Your task to perform on an android device: Go to settings Image 0: 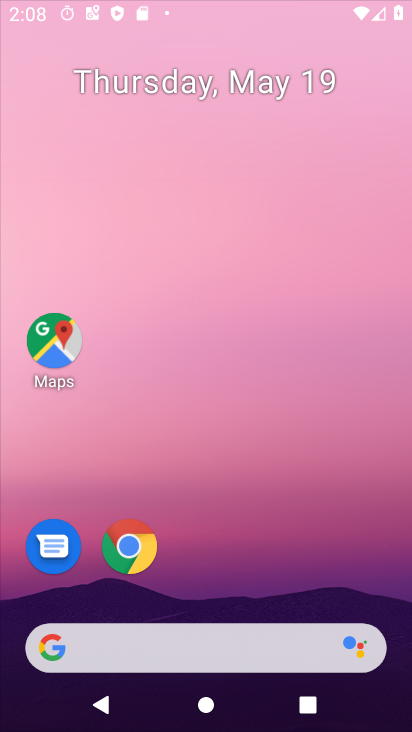
Step 0: drag from (318, 370) to (163, 123)
Your task to perform on an android device: Go to settings Image 1: 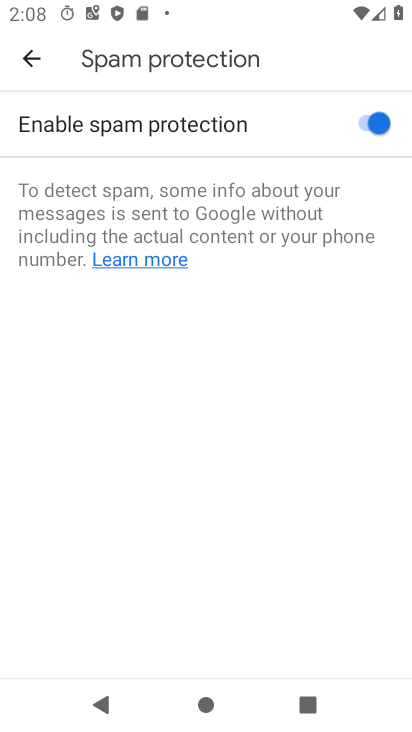
Step 1: press home button
Your task to perform on an android device: Go to settings Image 2: 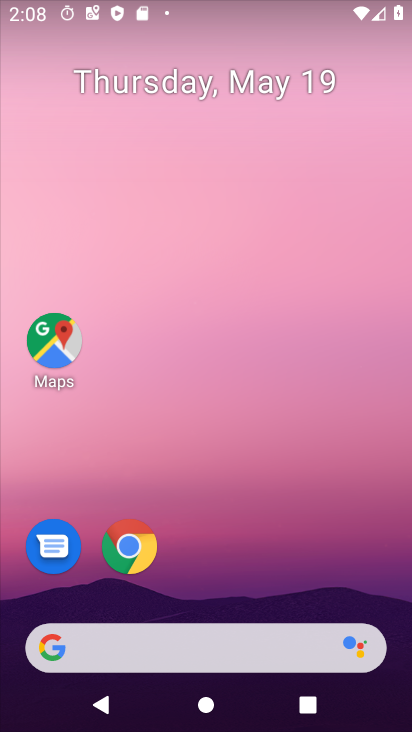
Step 2: drag from (148, 600) to (251, 44)
Your task to perform on an android device: Go to settings Image 3: 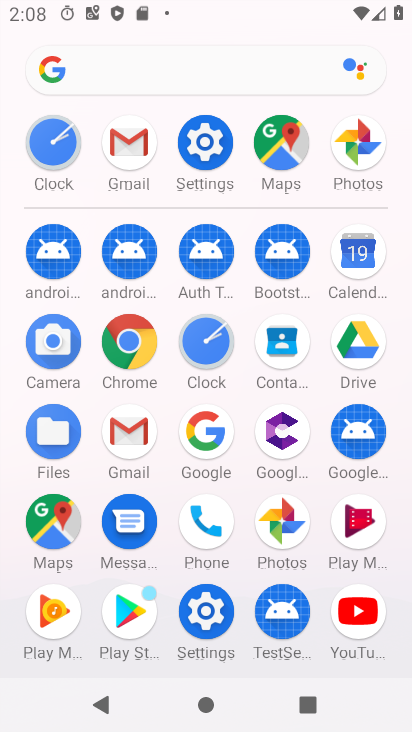
Step 3: click (207, 150)
Your task to perform on an android device: Go to settings Image 4: 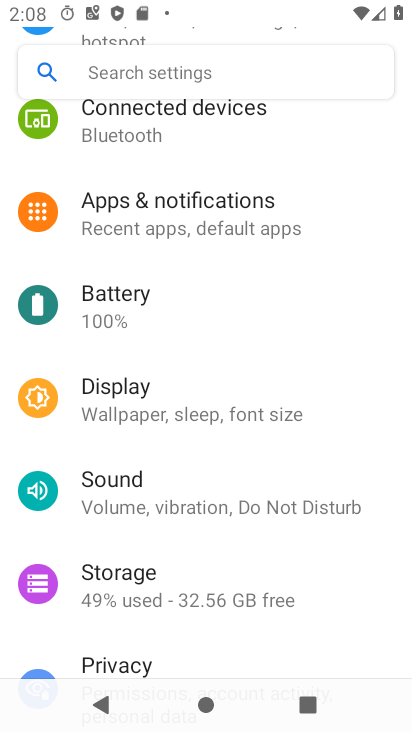
Step 4: task complete